Your task to perform on an android device: turn pop-ups on in chrome Image 0: 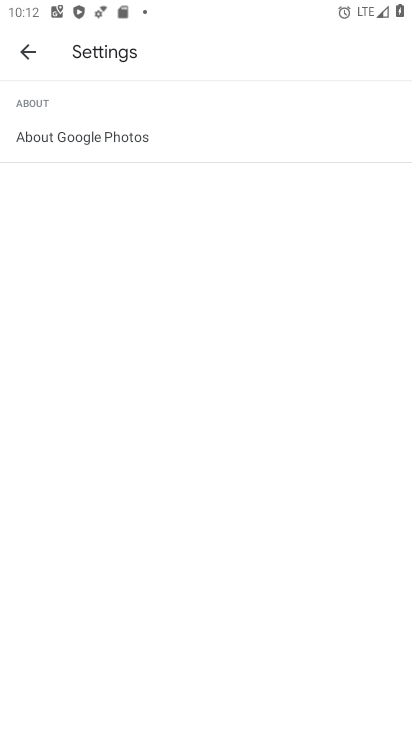
Step 0: press home button
Your task to perform on an android device: turn pop-ups on in chrome Image 1: 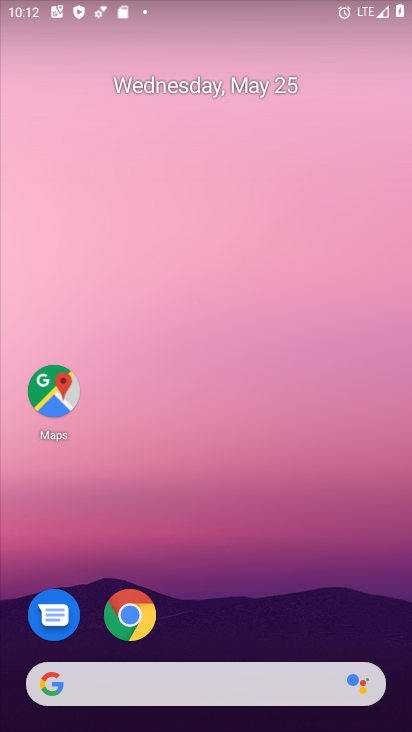
Step 1: click (145, 614)
Your task to perform on an android device: turn pop-ups on in chrome Image 2: 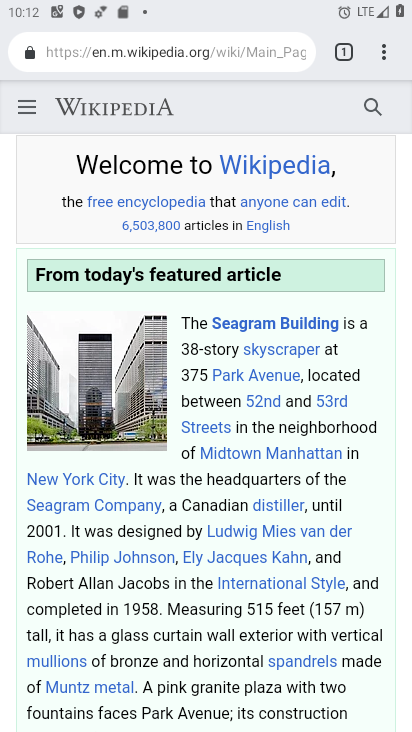
Step 2: click (380, 56)
Your task to perform on an android device: turn pop-ups on in chrome Image 3: 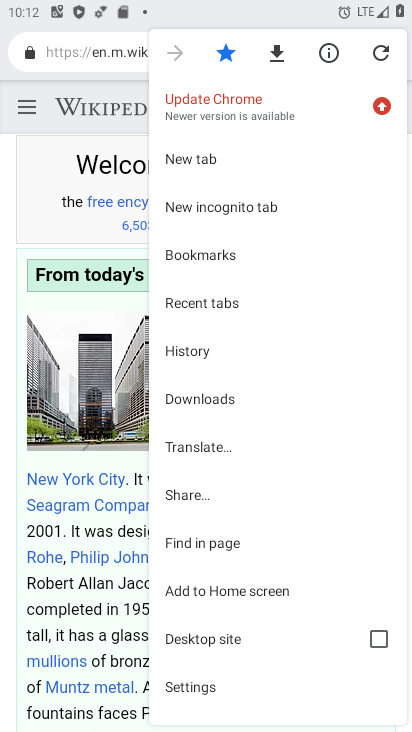
Step 3: click (208, 679)
Your task to perform on an android device: turn pop-ups on in chrome Image 4: 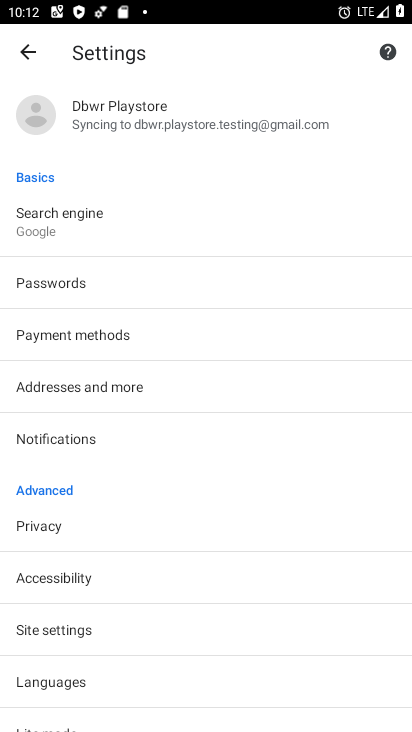
Step 4: click (220, 633)
Your task to perform on an android device: turn pop-ups on in chrome Image 5: 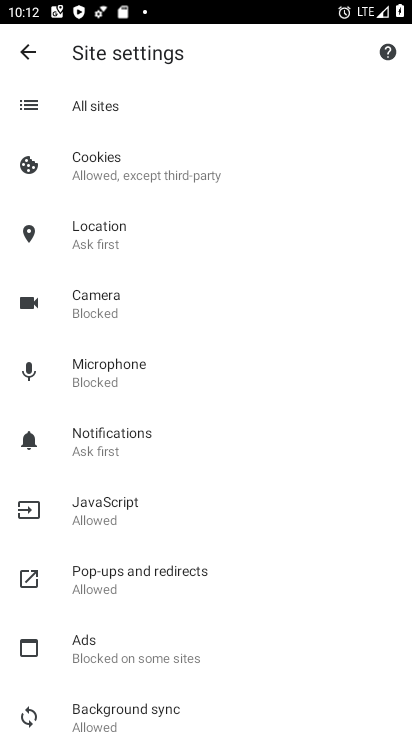
Step 5: click (233, 580)
Your task to perform on an android device: turn pop-ups on in chrome Image 6: 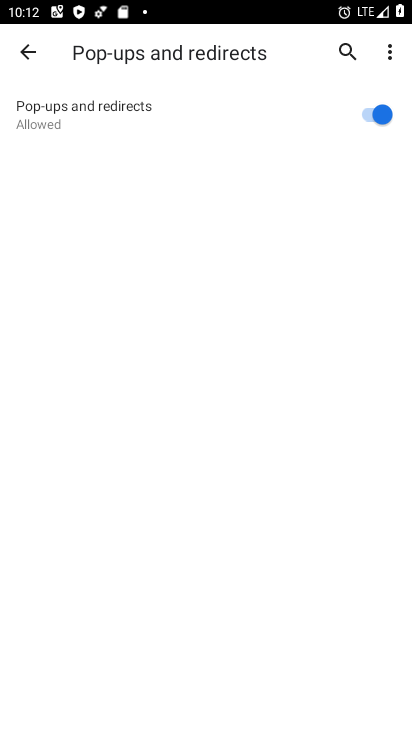
Step 6: task complete